Your task to perform on an android device: Open the calendar app, open the side menu, and click the "Day" option Image 0: 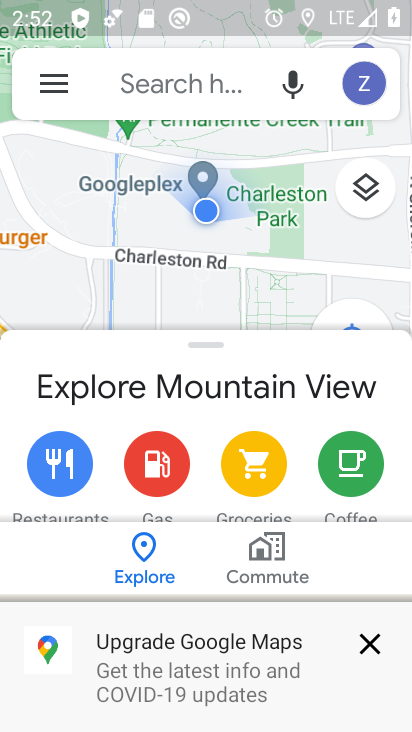
Step 0: press back button
Your task to perform on an android device: Open the calendar app, open the side menu, and click the "Day" option Image 1: 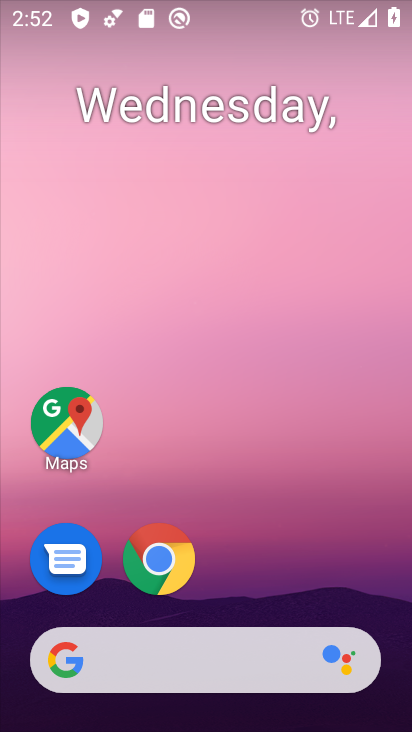
Step 1: drag from (268, 553) to (299, 25)
Your task to perform on an android device: Open the calendar app, open the side menu, and click the "Day" option Image 2: 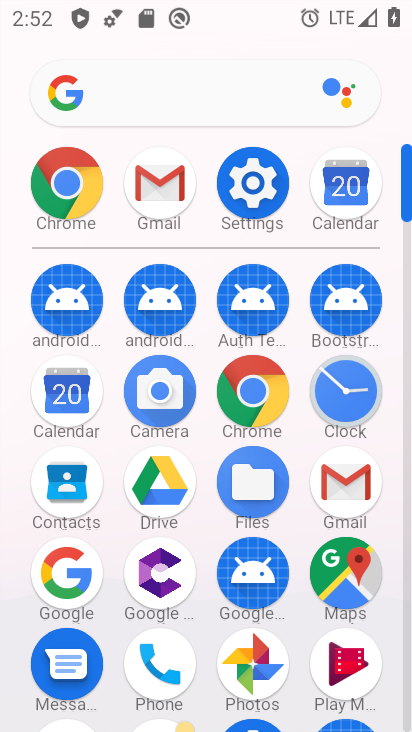
Step 2: click (49, 391)
Your task to perform on an android device: Open the calendar app, open the side menu, and click the "Day" option Image 3: 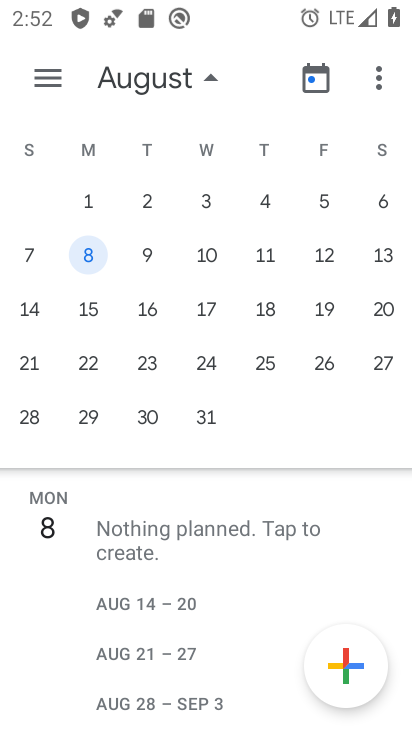
Step 3: click (53, 63)
Your task to perform on an android device: Open the calendar app, open the side menu, and click the "Day" option Image 4: 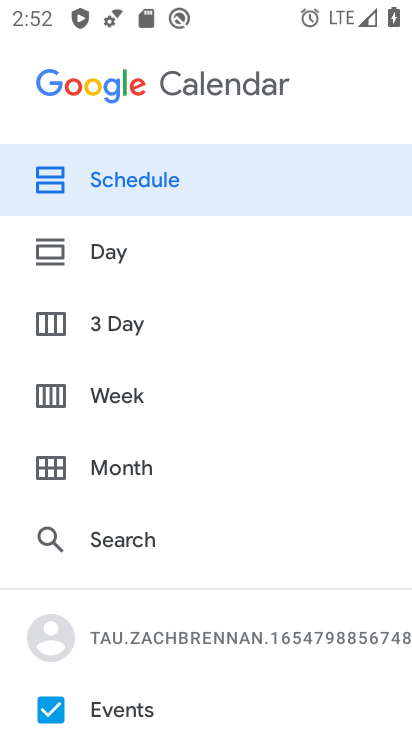
Step 4: click (96, 249)
Your task to perform on an android device: Open the calendar app, open the side menu, and click the "Day" option Image 5: 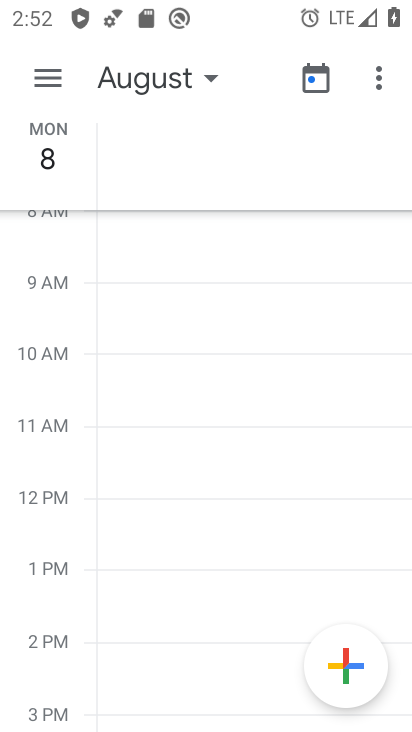
Step 5: task complete